Your task to perform on an android device: Open Google Maps and go to "Timeline" Image 0: 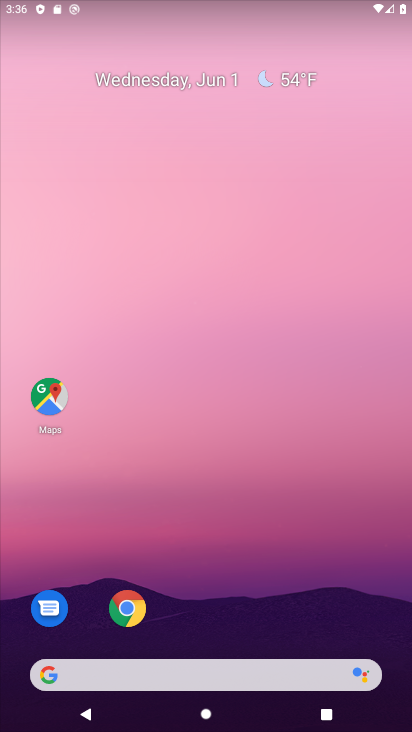
Step 0: click (49, 403)
Your task to perform on an android device: Open Google Maps and go to "Timeline" Image 1: 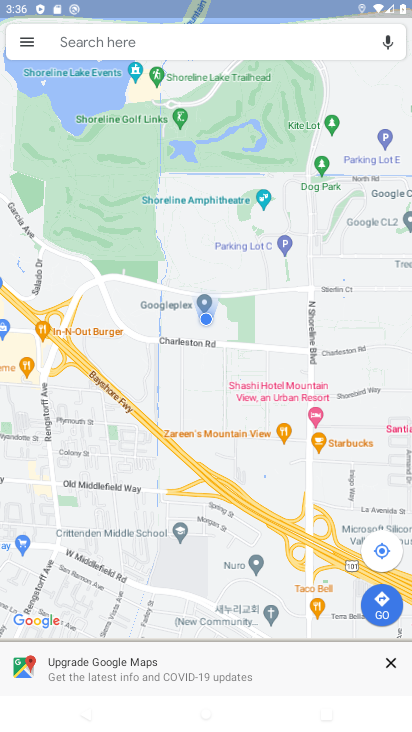
Step 1: click (29, 53)
Your task to perform on an android device: Open Google Maps and go to "Timeline" Image 2: 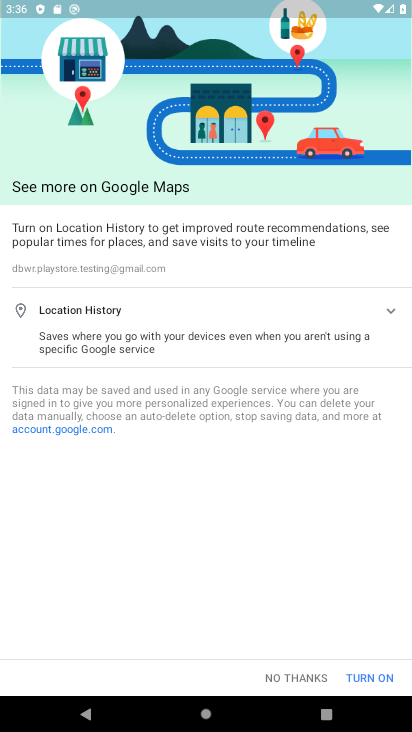
Step 2: click (310, 679)
Your task to perform on an android device: Open Google Maps and go to "Timeline" Image 3: 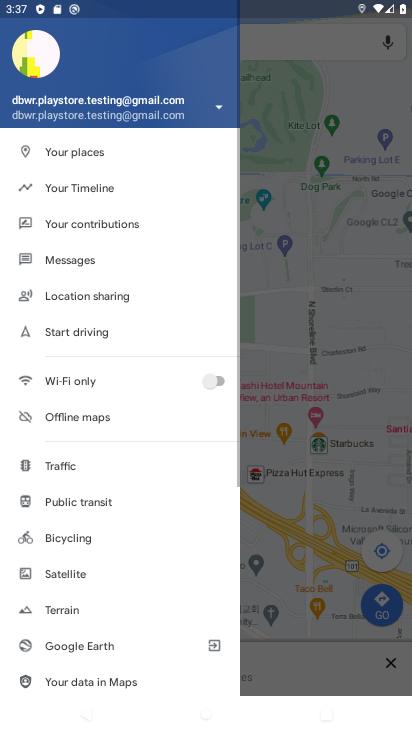
Step 3: click (84, 182)
Your task to perform on an android device: Open Google Maps and go to "Timeline" Image 4: 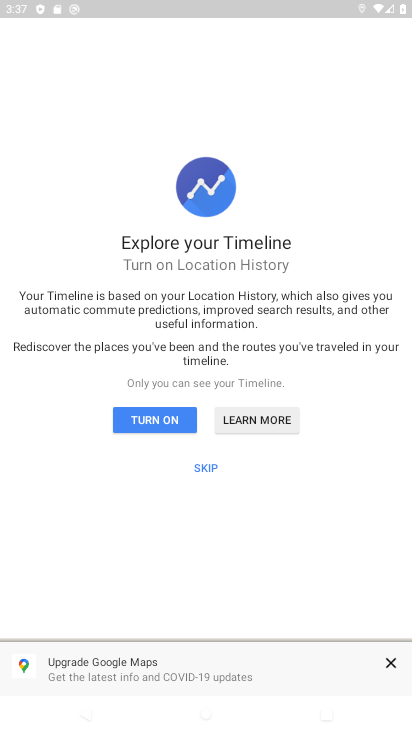
Step 4: click (213, 471)
Your task to perform on an android device: Open Google Maps and go to "Timeline" Image 5: 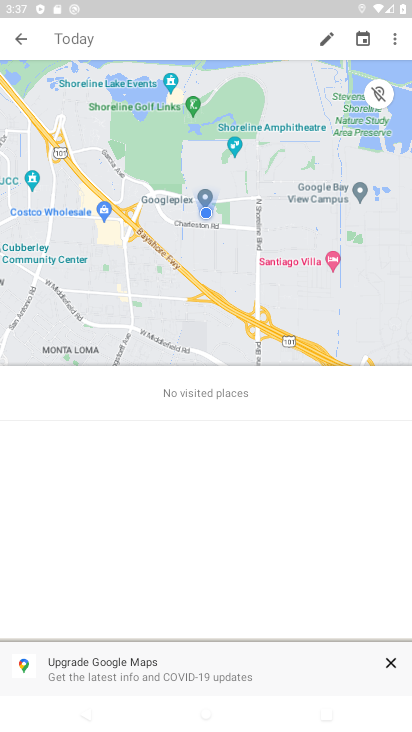
Step 5: task complete